Your task to perform on an android device: delete browsing data in the chrome app Image 0: 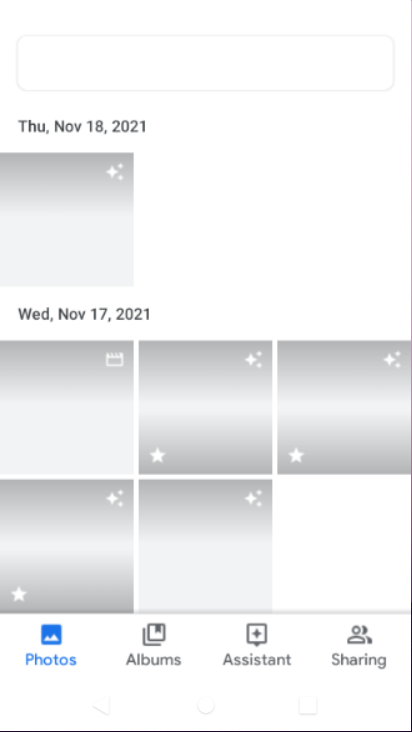
Step 0: drag from (386, 323) to (243, 218)
Your task to perform on an android device: delete browsing data in the chrome app Image 1: 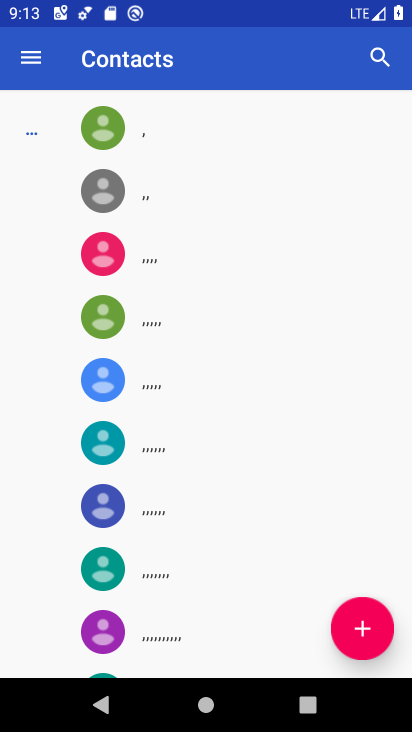
Step 1: press back button
Your task to perform on an android device: delete browsing data in the chrome app Image 2: 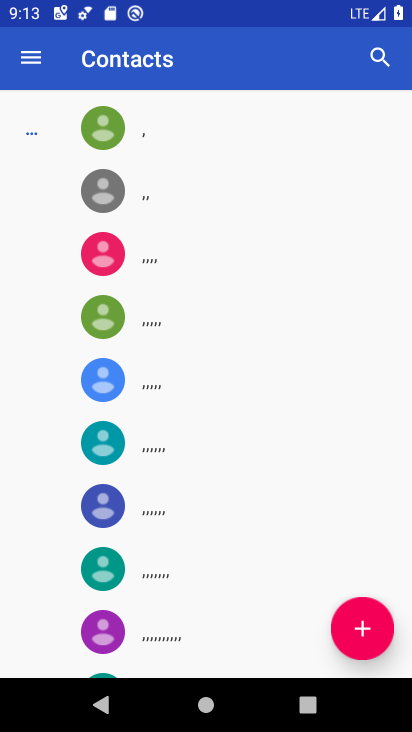
Step 2: press back button
Your task to perform on an android device: delete browsing data in the chrome app Image 3: 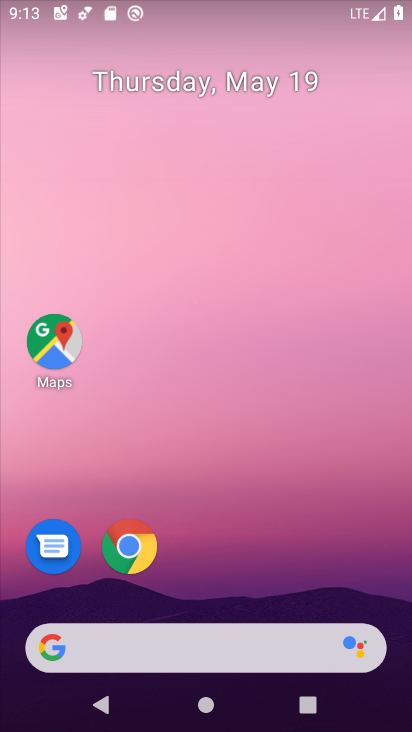
Step 3: drag from (347, 698) to (219, 123)
Your task to perform on an android device: delete browsing data in the chrome app Image 4: 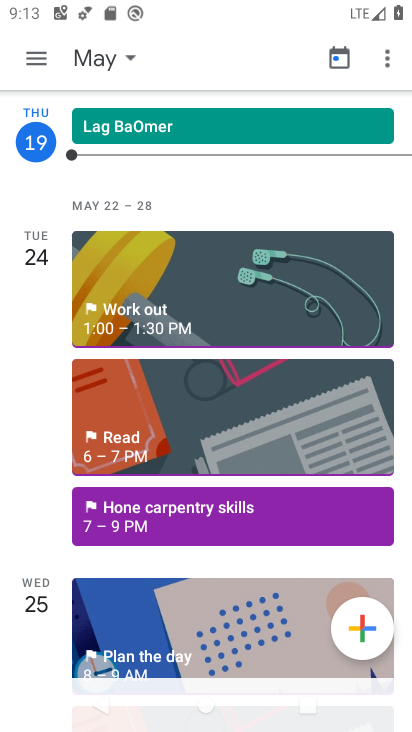
Step 4: press home button
Your task to perform on an android device: delete browsing data in the chrome app Image 5: 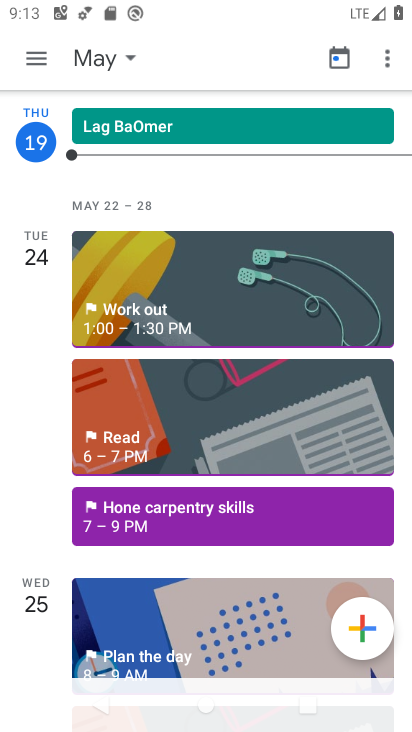
Step 5: press home button
Your task to perform on an android device: delete browsing data in the chrome app Image 6: 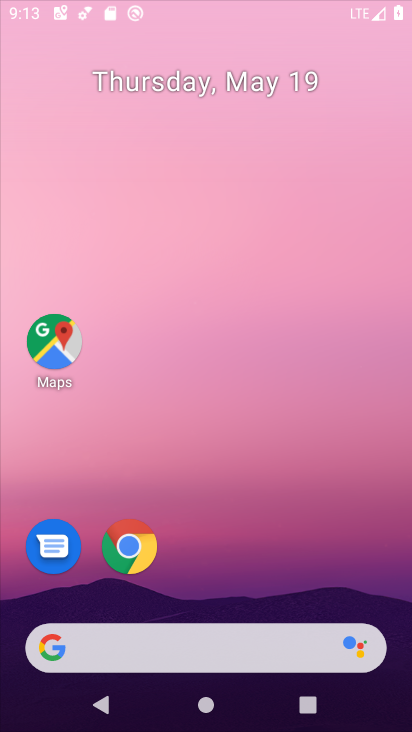
Step 6: press home button
Your task to perform on an android device: delete browsing data in the chrome app Image 7: 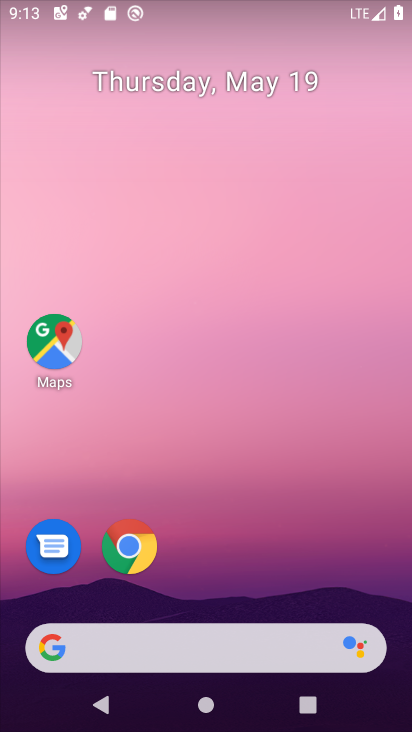
Step 7: drag from (249, 681) to (188, 22)
Your task to perform on an android device: delete browsing data in the chrome app Image 8: 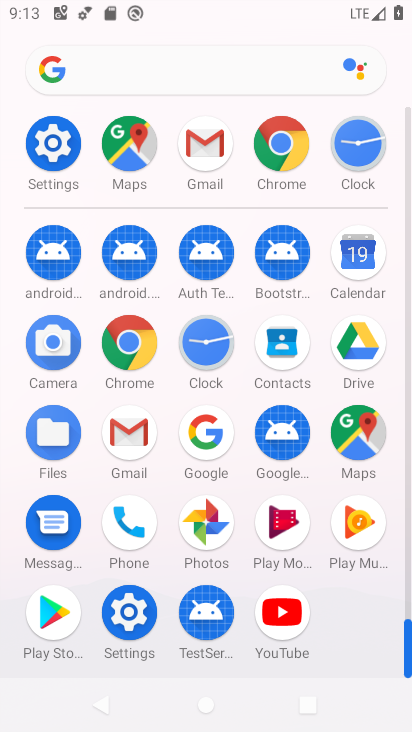
Step 8: click (286, 140)
Your task to perform on an android device: delete browsing data in the chrome app Image 9: 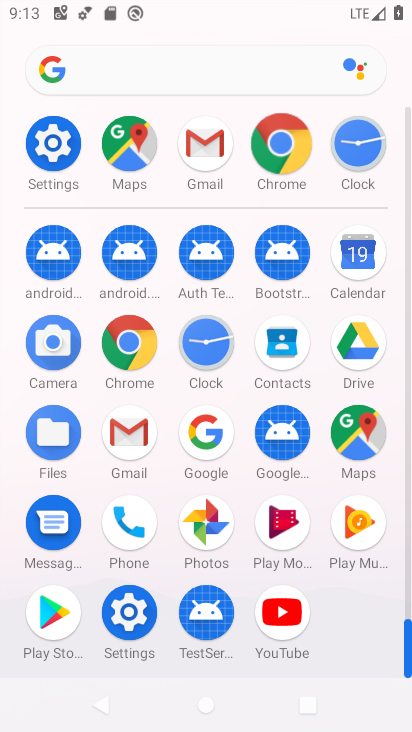
Step 9: click (286, 140)
Your task to perform on an android device: delete browsing data in the chrome app Image 10: 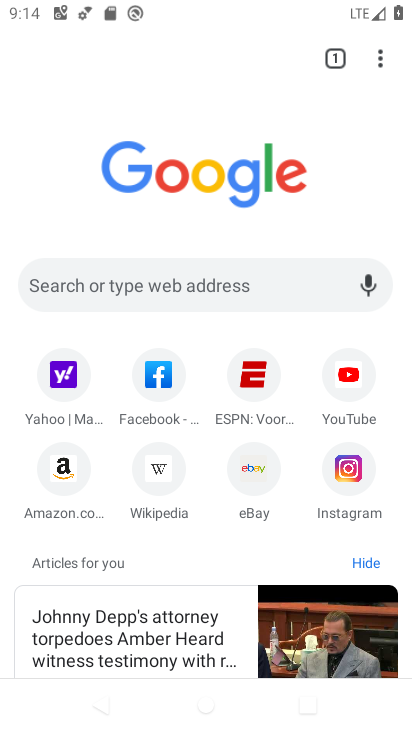
Step 10: press back button
Your task to perform on an android device: delete browsing data in the chrome app Image 11: 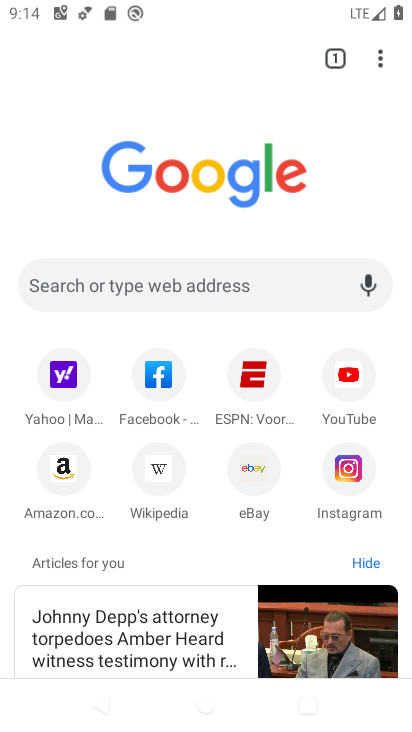
Step 11: press back button
Your task to perform on an android device: delete browsing data in the chrome app Image 12: 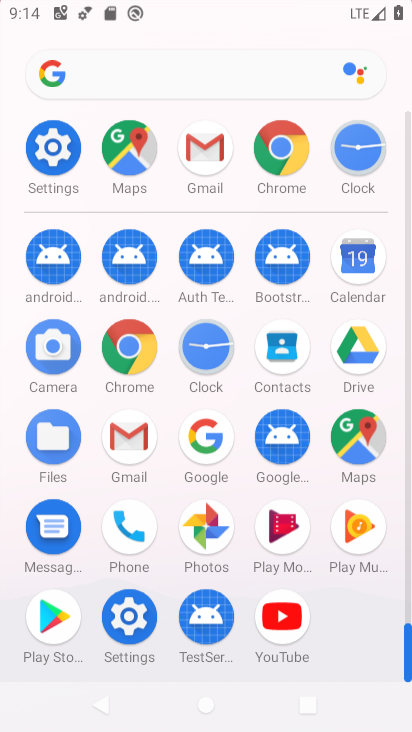
Step 12: press back button
Your task to perform on an android device: delete browsing data in the chrome app Image 13: 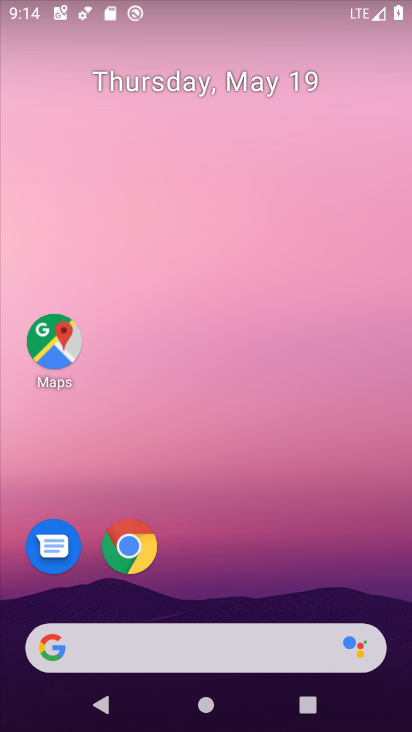
Step 13: drag from (263, 555) to (154, 25)
Your task to perform on an android device: delete browsing data in the chrome app Image 14: 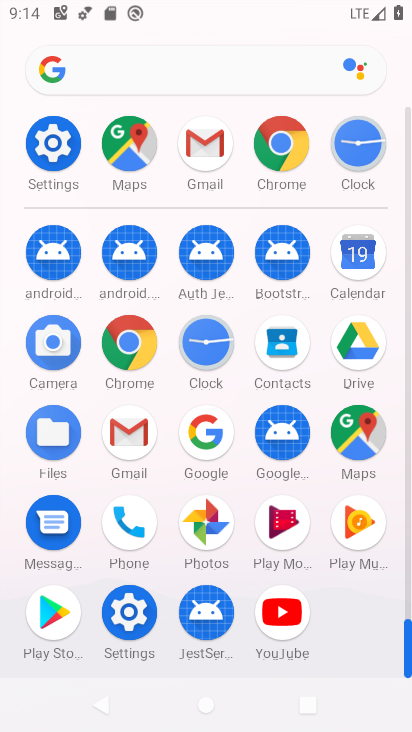
Step 14: click (280, 143)
Your task to perform on an android device: delete browsing data in the chrome app Image 15: 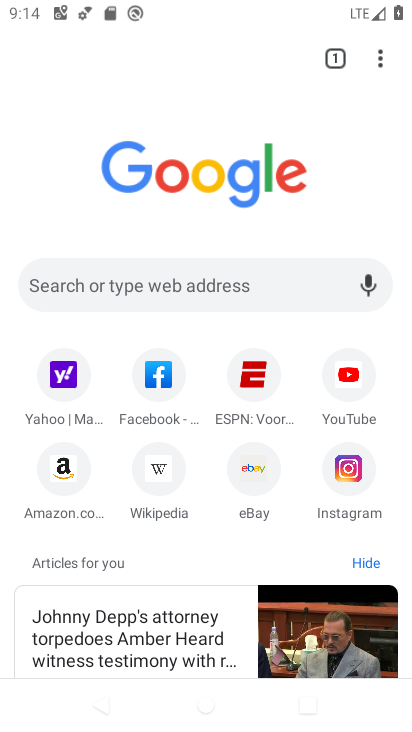
Step 15: drag from (379, 55) to (157, 334)
Your task to perform on an android device: delete browsing data in the chrome app Image 16: 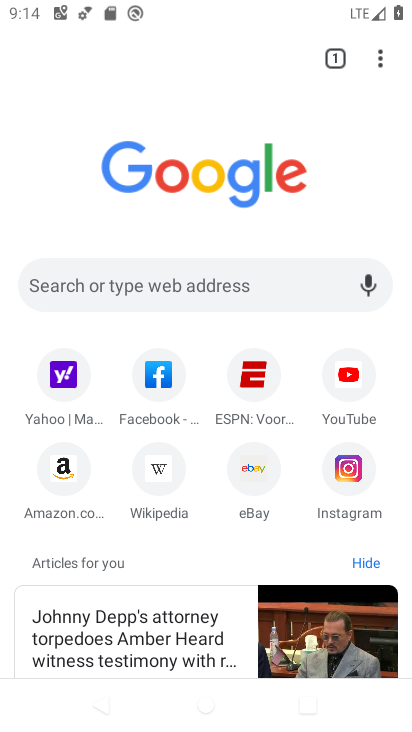
Step 16: click (160, 310)
Your task to perform on an android device: delete browsing data in the chrome app Image 17: 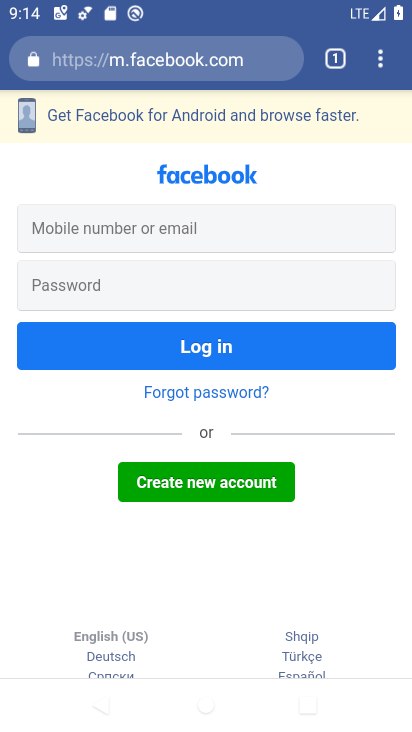
Step 17: press back button
Your task to perform on an android device: delete browsing data in the chrome app Image 18: 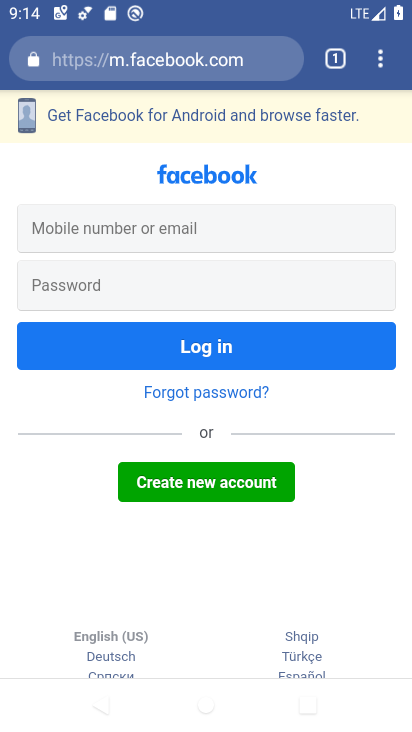
Step 18: press back button
Your task to perform on an android device: delete browsing data in the chrome app Image 19: 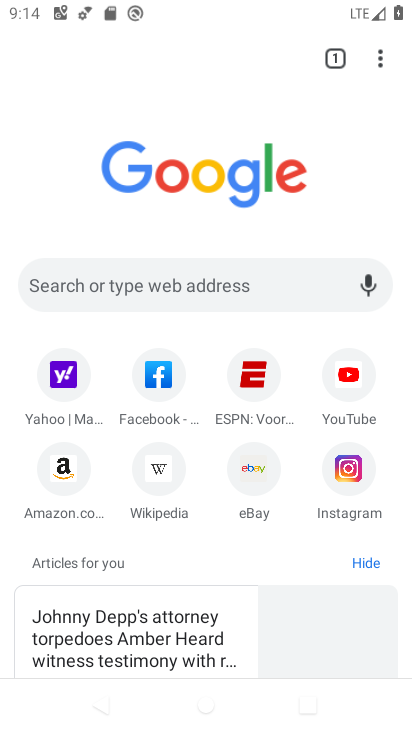
Step 19: press back button
Your task to perform on an android device: delete browsing data in the chrome app Image 20: 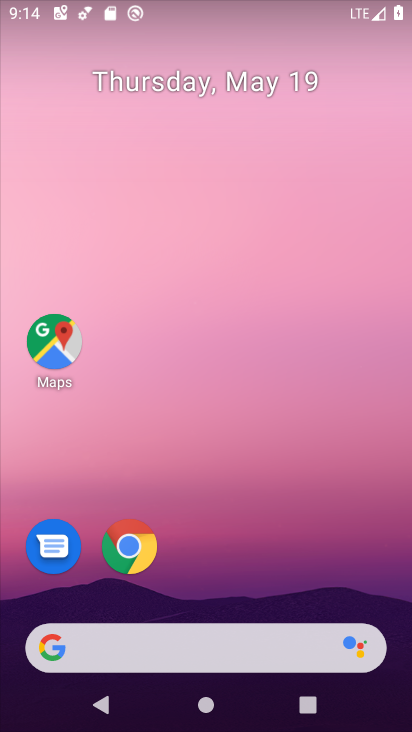
Step 20: drag from (300, 709) to (234, 158)
Your task to perform on an android device: delete browsing data in the chrome app Image 21: 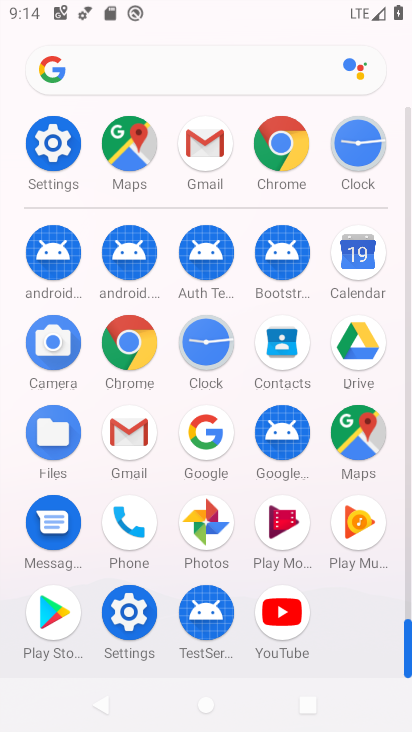
Step 21: click (277, 141)
Your task to perform on an android device: delete browsing data in the chrome app Image 22: 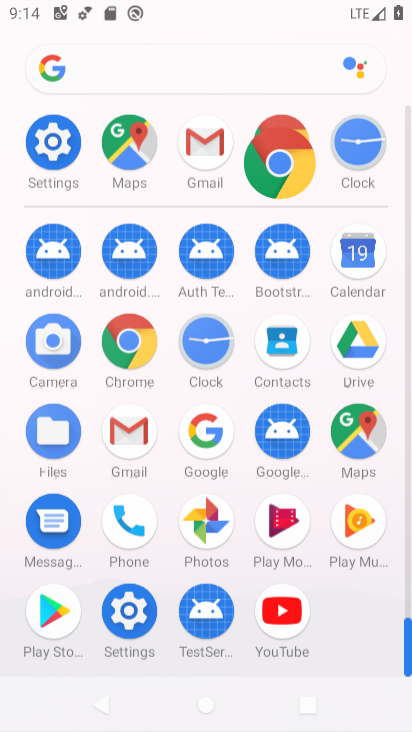
Step 22: click (277, 141)
Your task to perform on an android device: delete browsing data in the chrome app Image 23: 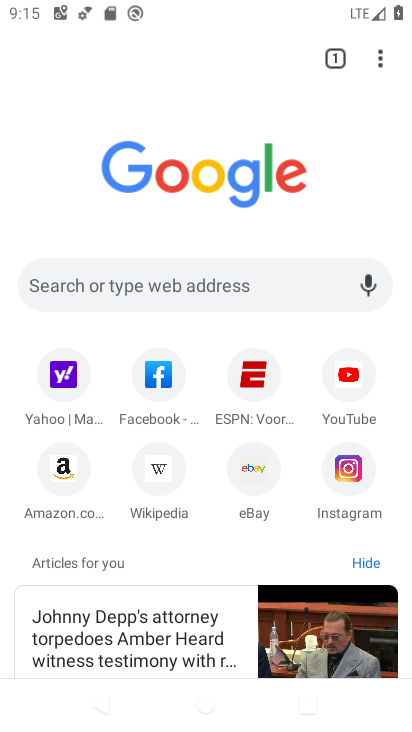
Step 23: drag from (382, 70) to (164, 328)
Your task to perform on an android device: delete browsing data in the chrome app Image 24: 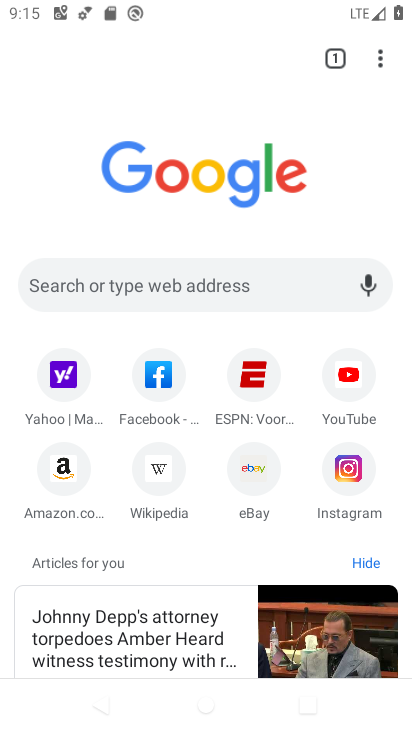
Step 24: click (172, 329)
Your task to perform on an android device: delete browsing data in the chrome app Image 25: 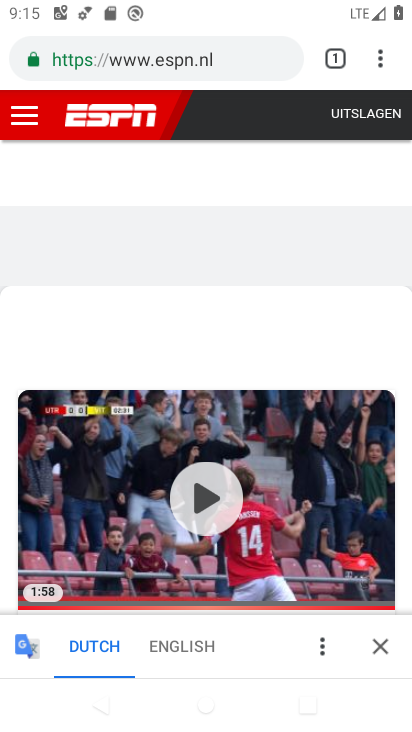
Step 25: drag from (377, 51) to (155, 330)
Your task to perform on an android device: delete browsing data in the chrome app Image 26: 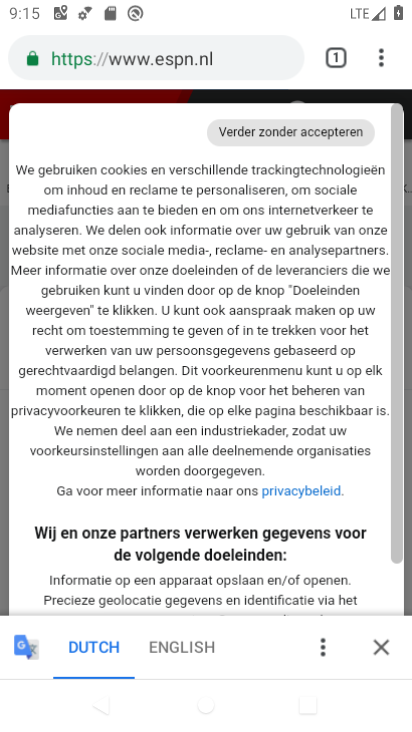
Step 26: click (155, 330)
Your task to perform on an android device: delete browsing data in the chrome app Image 27: 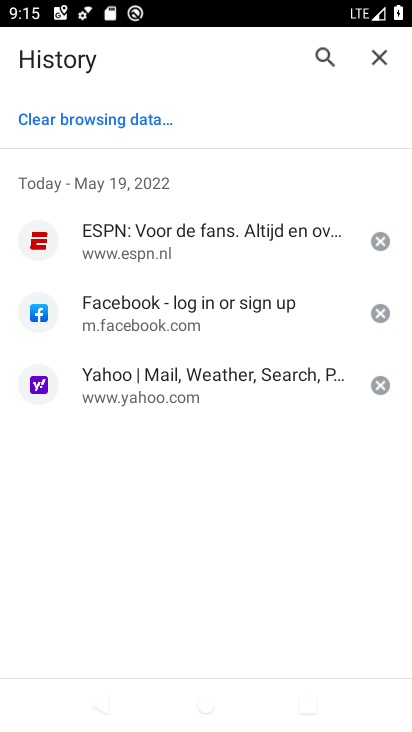
Step 27: click (155, 330)
Your task to perform on an android device: delete browsing data in the chrome app Image 28: 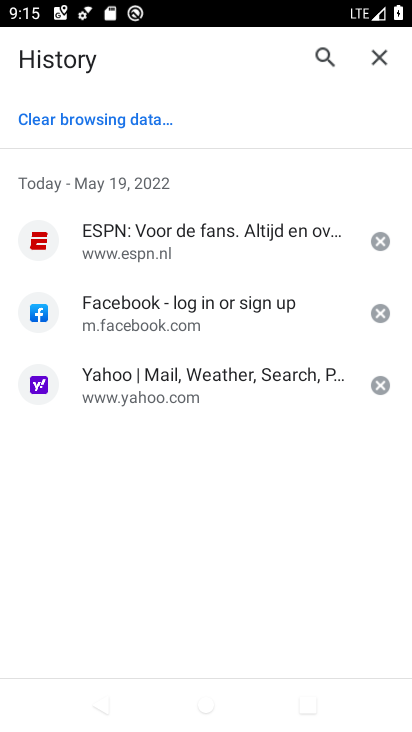
Step 28: click (381, 245)
Your task to perform on an android device: delete browsing data in the chrome app Image 29: 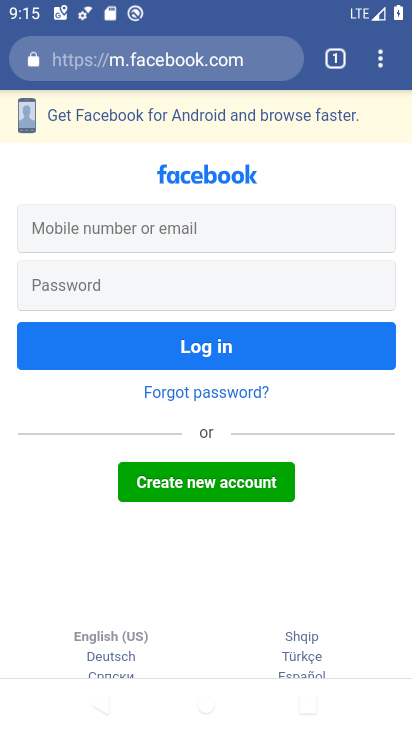
Step 29: press back button
Your task to perform on an android device: delete browsing data in the chrome app Image 30: 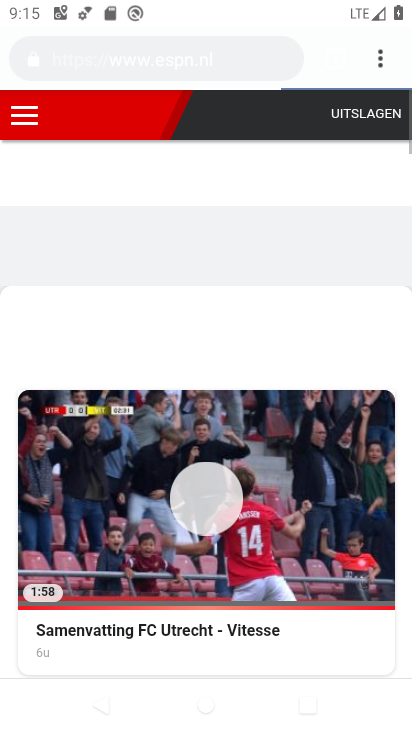
Step 30: press back button
Your task to perform on an android device: delete browsing data in the chrome app Image 31: 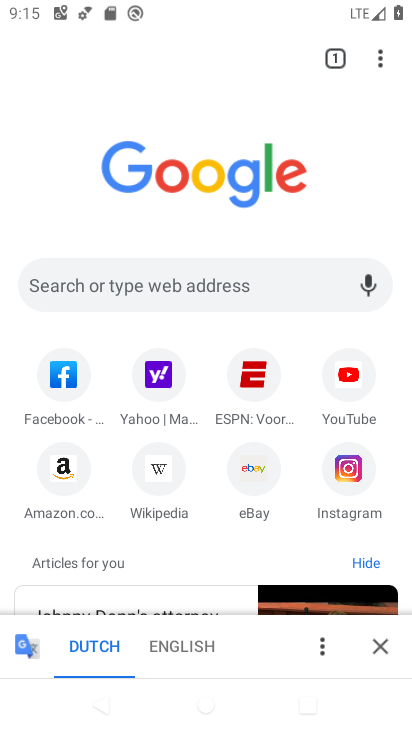
Step 31: press home button
Your task to perform on an android device: delete browsing data in the chrome app Image 32: 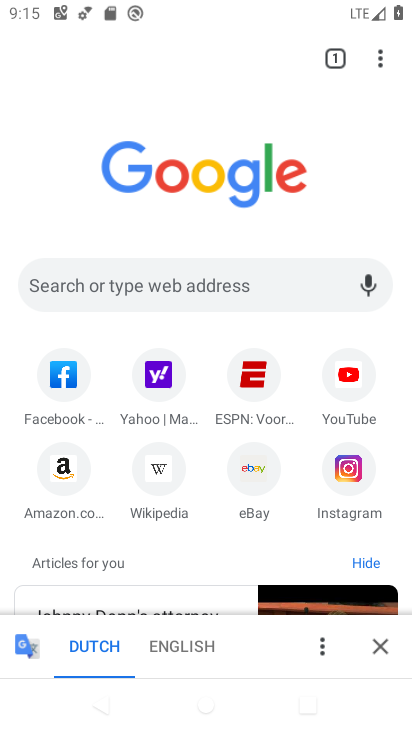
Step 32: press home button
Your task to perform on an android device: delete browsing data in the chrome app Image 33: 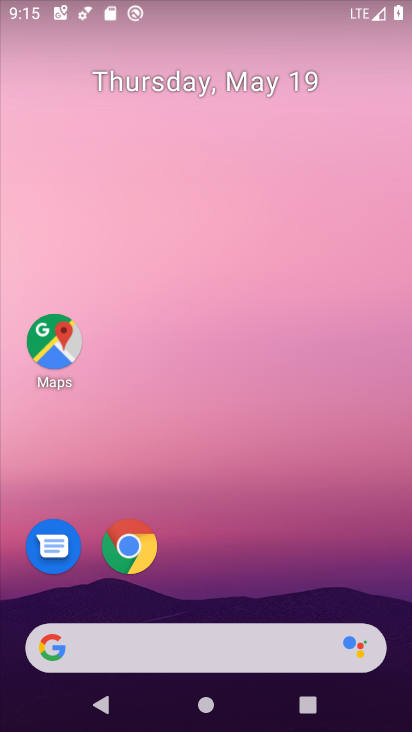
Step 33: drag from (237, 628) to (144, 112)
Your task to perform on an android device: delete browsing data in the chrome app Image 34: 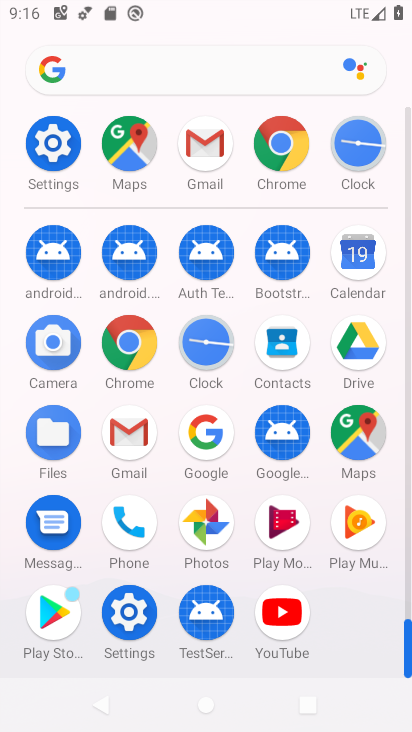
Step 34: click (280, 147)
Your task to perform on an android device: delete browsing data in the chrome app Image 35: 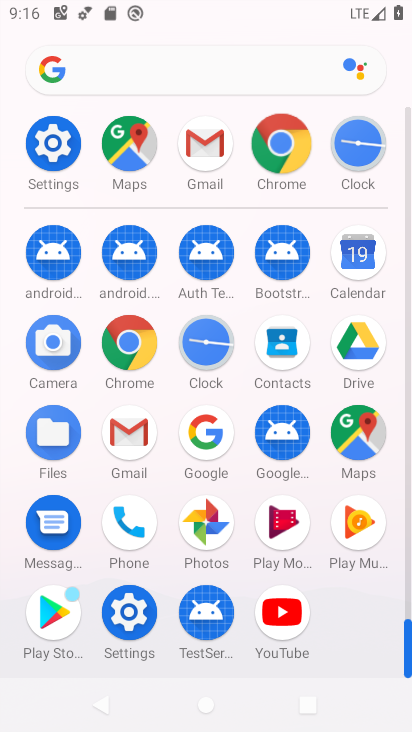
Step 35: click (283, 142)
Your task to perform on an android device: delete browsing data in the chrome app Image 36: 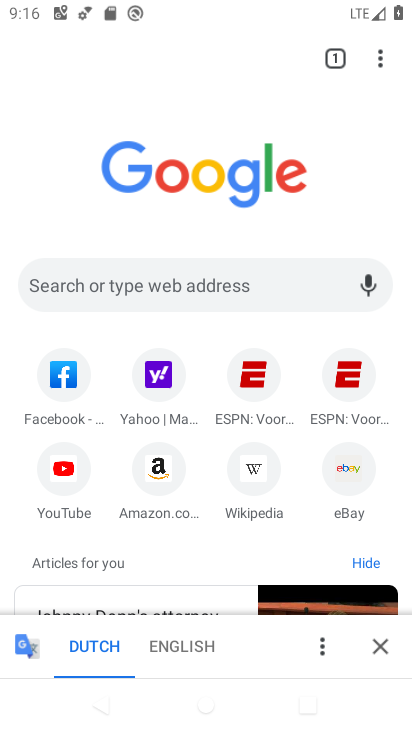
Step 36: press back button
Your task to perform on an android device: delete browsing data in the chrome app Image 37: 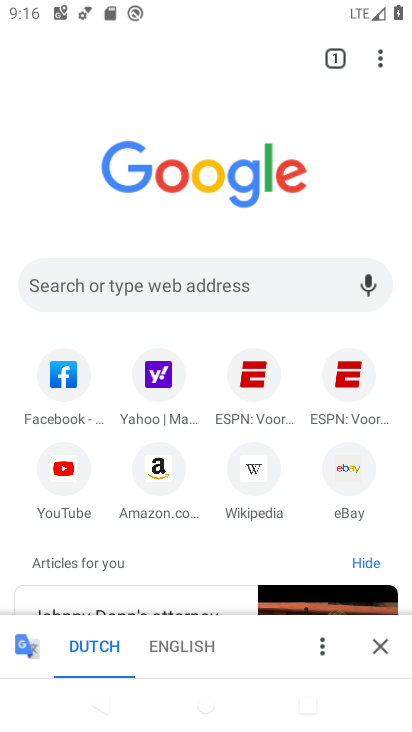
Step 37: press back button
Your task to perform on an android device: delete browsing data in the chrome app Image 38: 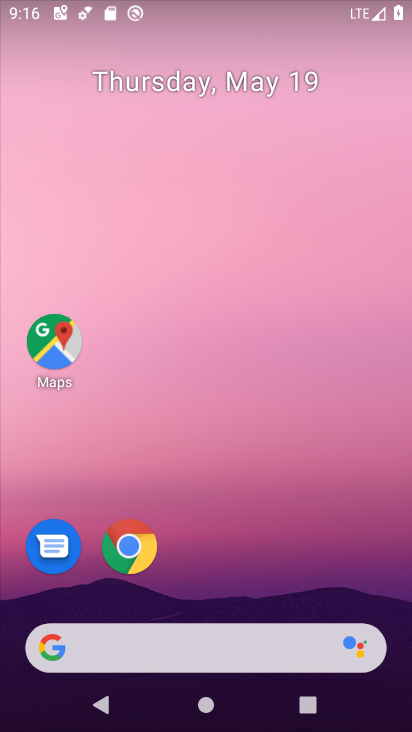
Step 38: drag from (260, 646) to (145, 130)
Your task to perform on an android device: delete browsing data in the chrome app Image 39: 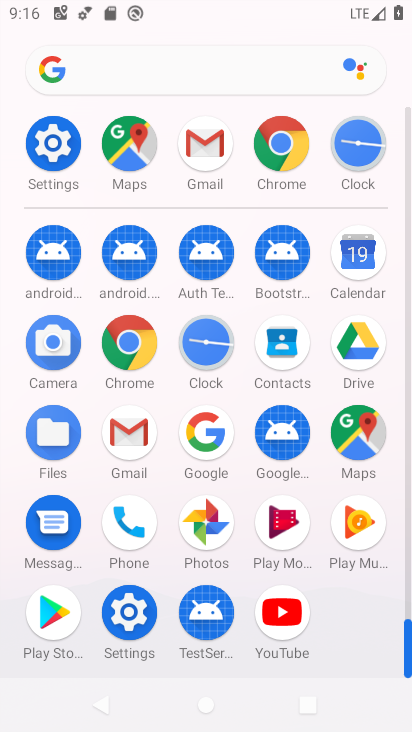
Step 39: click (275, 137)
Your task to perform on an android device: delete browsing data in the chrome app Image 40: 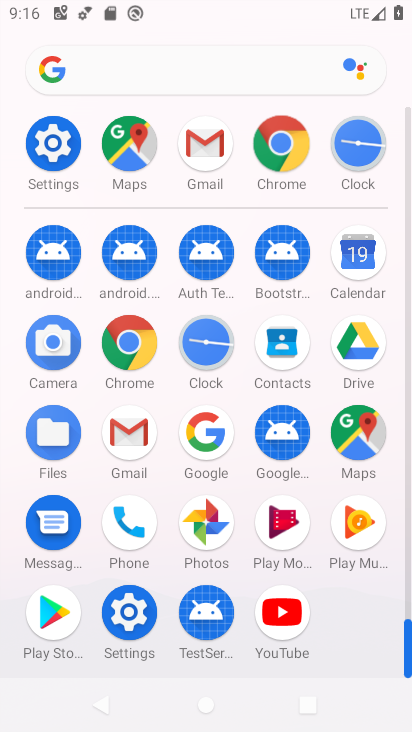
Step 40: click (277, 137)
Your task to perform on an android device: delete browsing data in the chrome app Image 41: 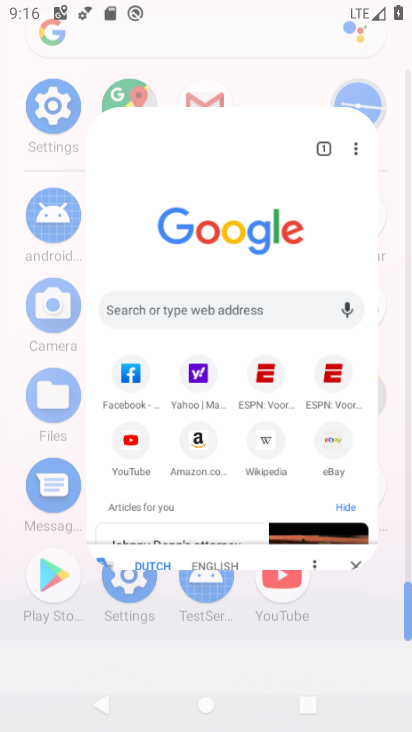
Step 41: click (277, 137)
Your task to perform on an android device: delete browsing data in the chrome app Image 42: 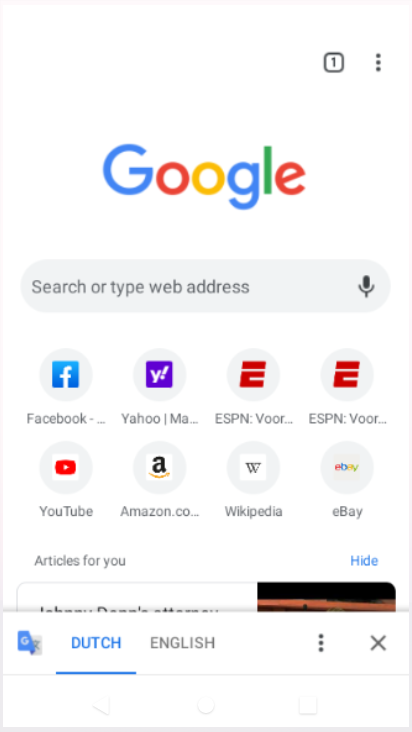
Step 42: click (277, 137)
Your task to perform on an android device: delete browsing data in the chrome app Image 43: 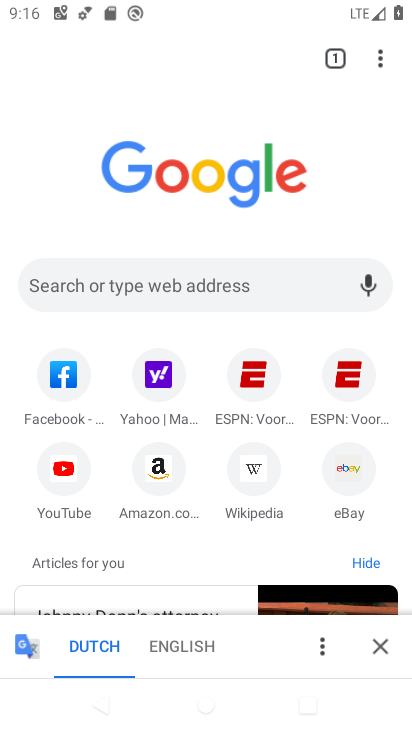
Step 43: drag from (381, 60) to (160, 327)
Your task to perform on an android device: delete browsing data in the chrome app Image 44: 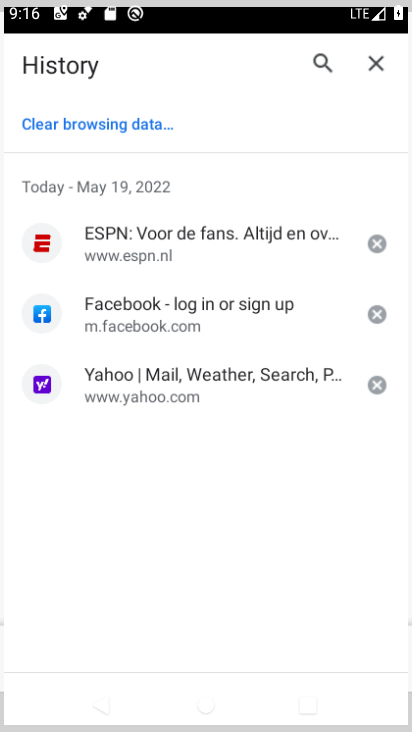
Step 44: click (161, 327)
Your task to perform on an android device: delete browsing data in the chrome app Image 45: 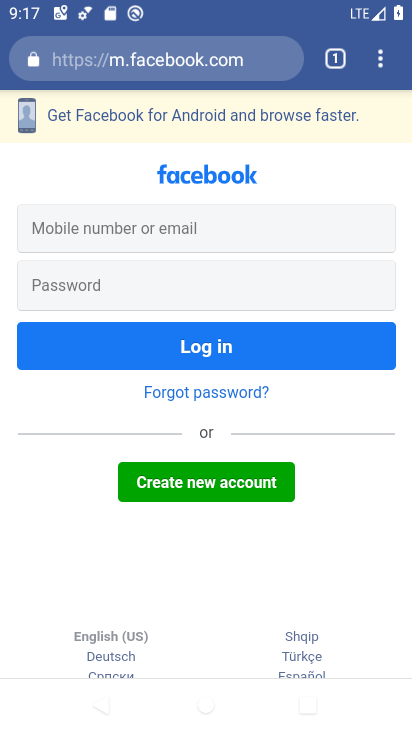
Step 45: press back button
Your task to perform on an android device: delete browsing data in the chrome app Image 46: 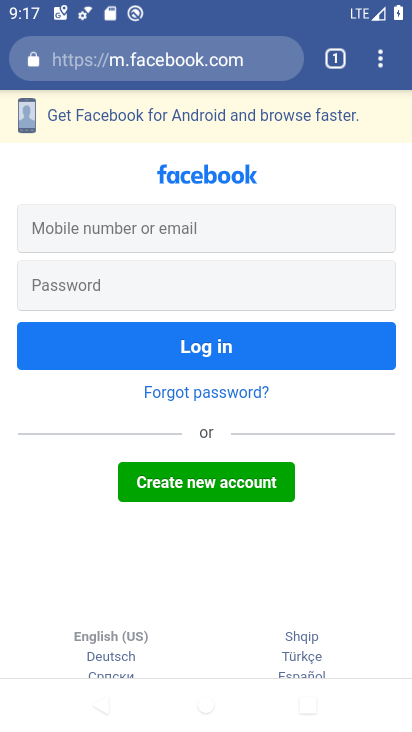
Step 46: press back button
Your task to perform on an android device: delete browsing data in the chrome app Image 47: 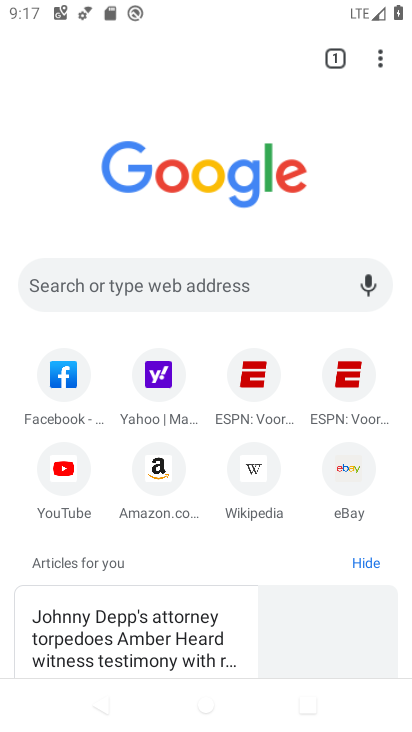
Step 47: press back button
Your task to perform on an android device: delete browsing data in the chrome app Image 48: 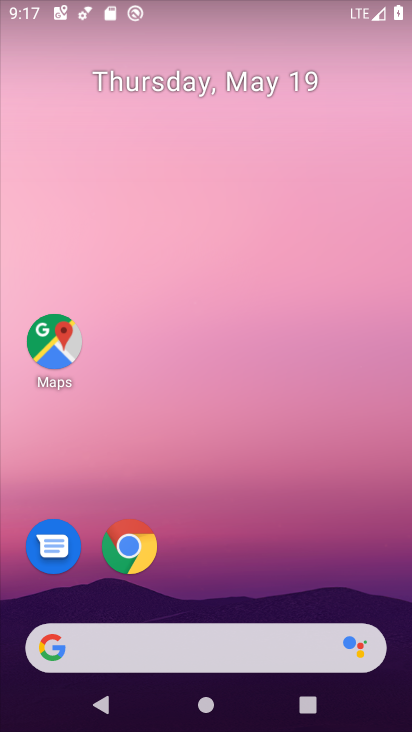
Step 48: drag from (259, 672) to (194, 5)
Your task to perform on an android device: delete browsing data in the chrome app Image 49: 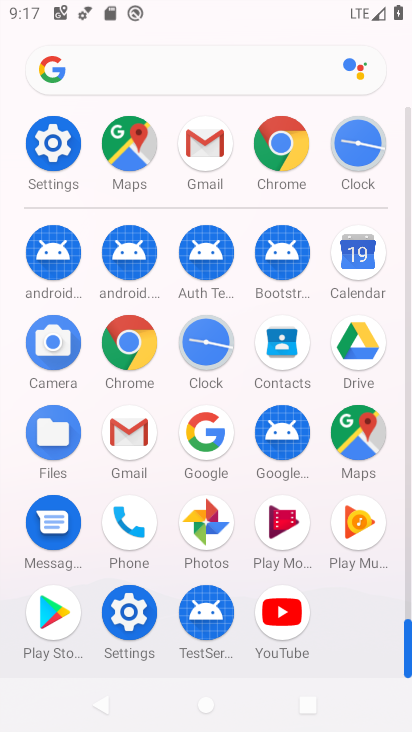
Step 49: click (283, 148)
Your task to perform on an android device: delete browsing data in the chrome app Image 50: 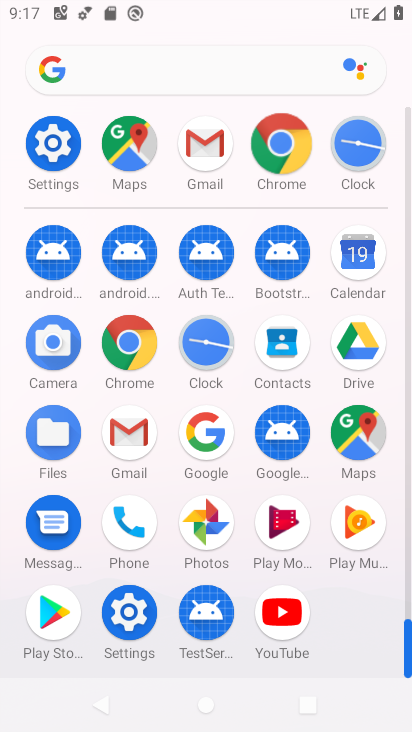
Step 50: click (283, 148)
Your task to perform on an android device: delete browsing data in the chrome app Image 51: 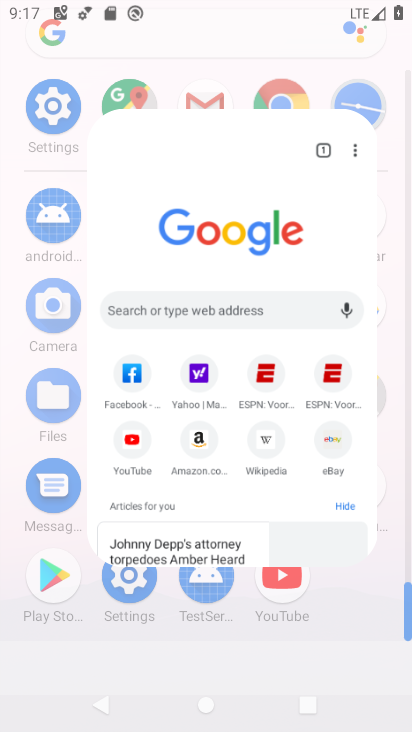
Step 51: click (284, 147)
Your task to perform on an android device: delete browsing data in the chrome app Image 52: 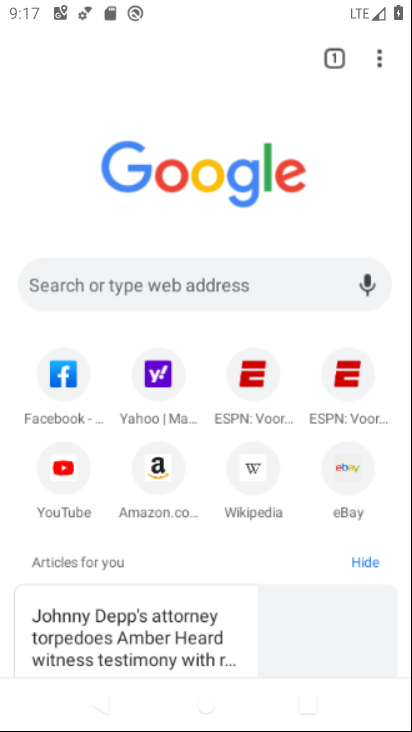
Step 52: click (284, 147)
Your task to perform on an android device: delete browsing data in the chrome app Image 53: 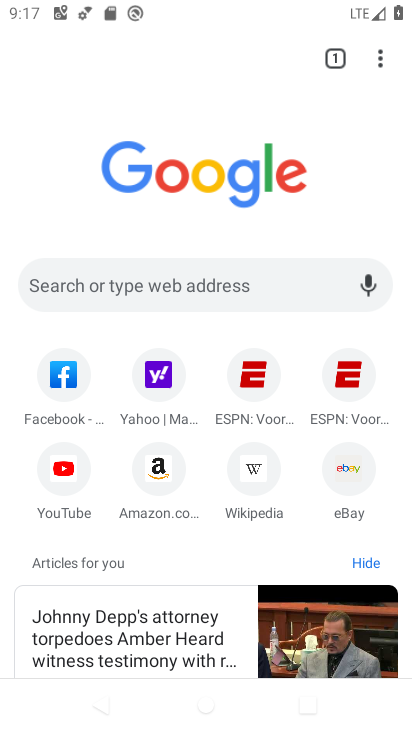
Step 53: drag from (384, 61) to (158, 322)
Your task to perform on an android device: delete browsing data in the chrome app Image 54: 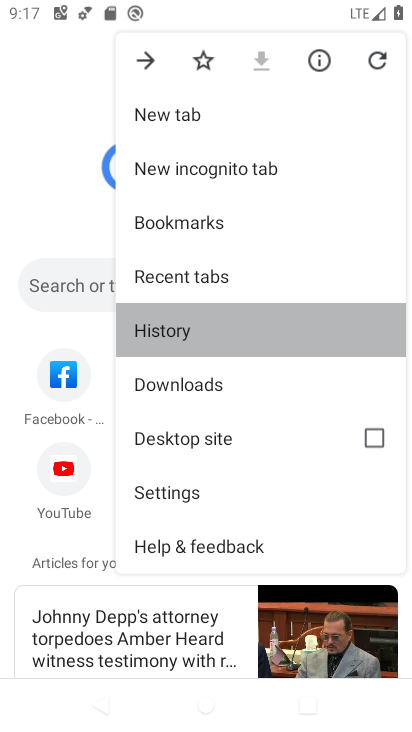
Step 54: click (156, 323)
Your task to perform on an android device: delete browsing data in the chrome app Image 55: 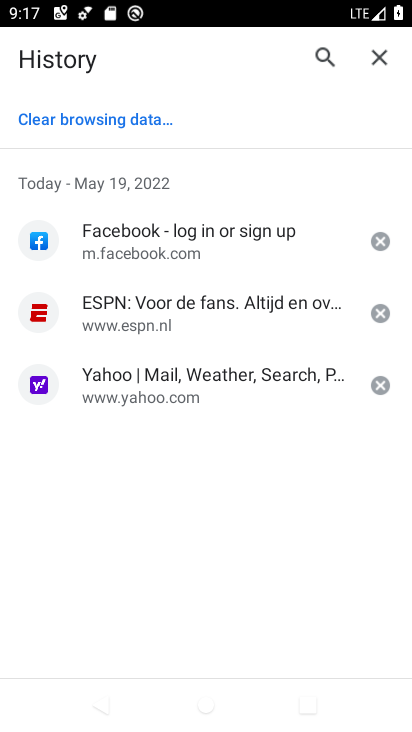
Step 55: click (382, 240)
Your task to perform on an android device: delete browsing data in the chrome app Image 56: 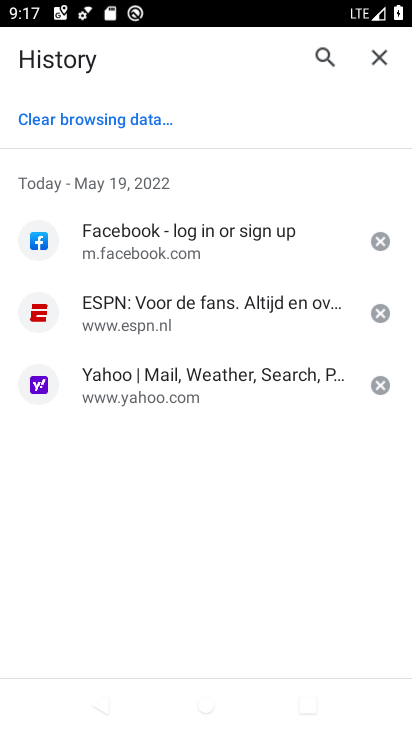
Step 56: click (382, 240)
Your task to perform on an android device: delete browsing data in the chrome app Image 57: 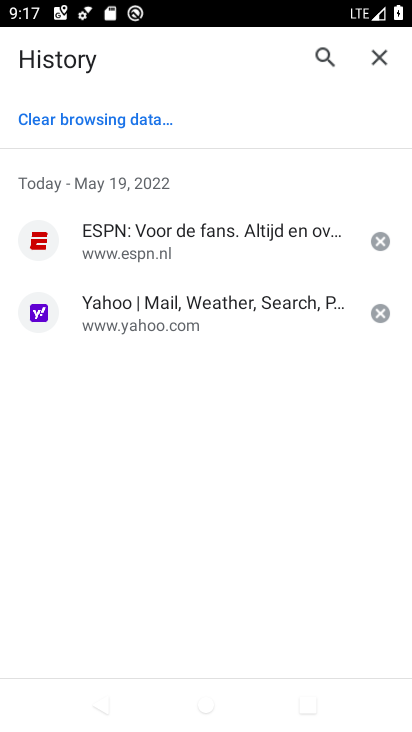
Step 57: task complete